Your task to perform on an android device: stop showing notifications on the lock screen Image 0: 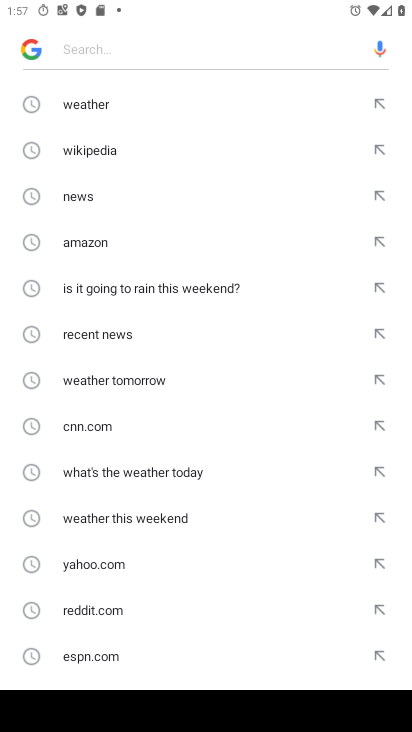
Step 0: press home button
Your task to perform on an android device: stop showing notifications on the lock screen Image 1: 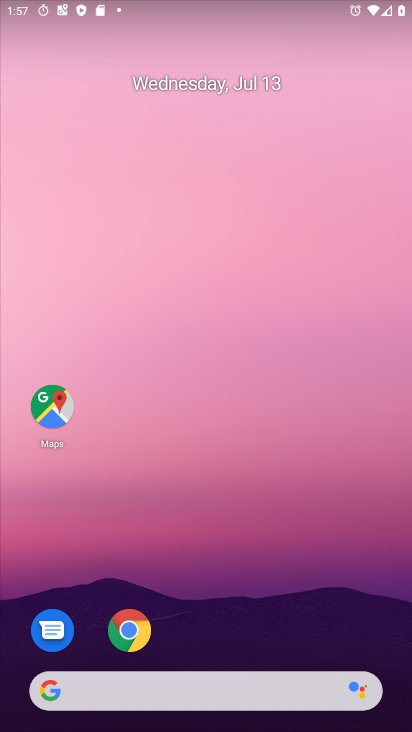
Step 1: drag from (337, 607) to (338, 239)
Your task to perform on an android device: stop showing notifications on the lock screen Image 2: 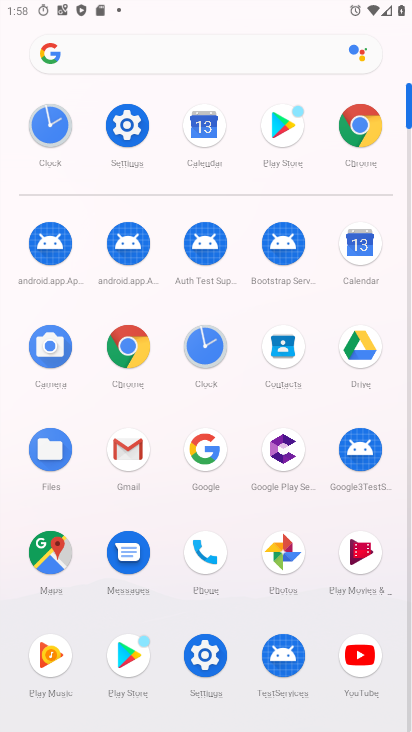
Step 2: click (134, 144)
Your task to perform on an android device: stop showing notifications on the lock screen Image 3: 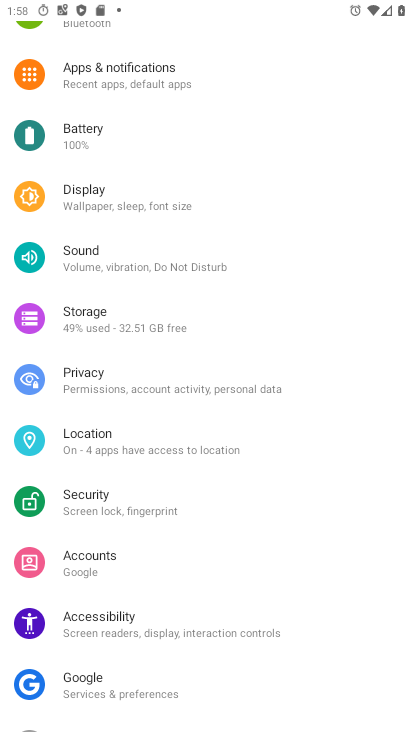
Step 3: drag from (327, 213) to (342, 335)
Your task to perform on an android device: stop showing notifications on the lock screen Image 4: 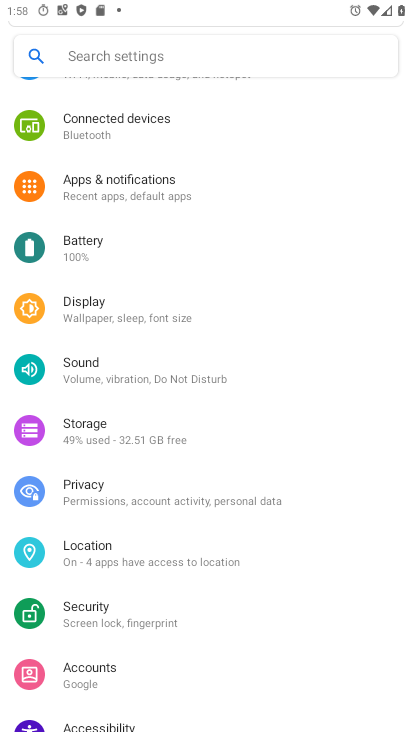
Step 4: drag from (335, 186) to (349, 349)
Your task to perform on an android device: stop showing notifications on the lock screen Image 5: 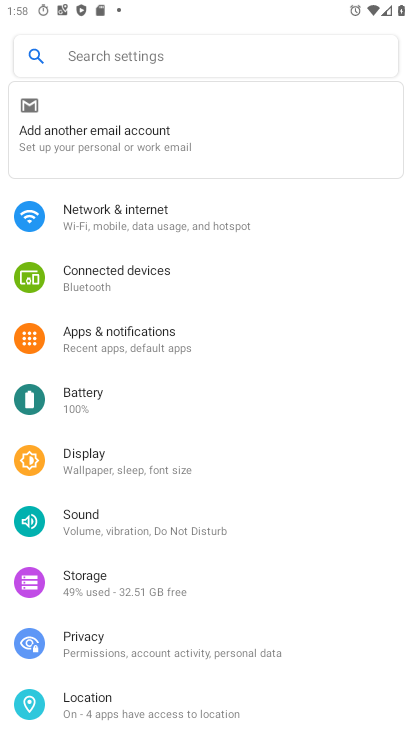
Step 5: drag from (328, 139) to (329, 318)
Your task to perform on an android device: stop showing notifications on the lock screen Image 6: 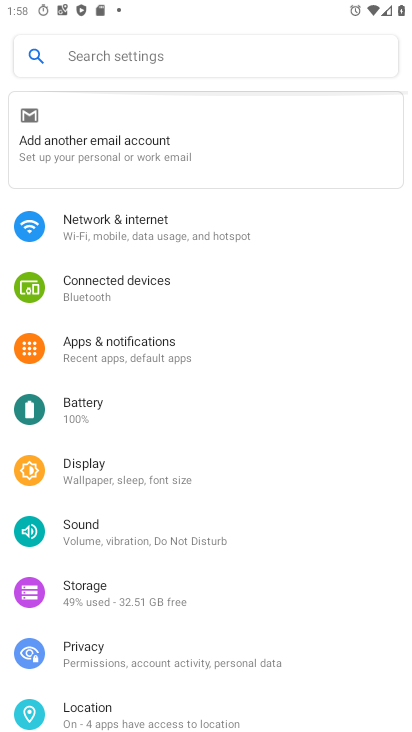
Step 6: drag from (329, 364) to (332, 250)
Your task to perform on an android device: stop showing notifications on the lock screen Image 7: 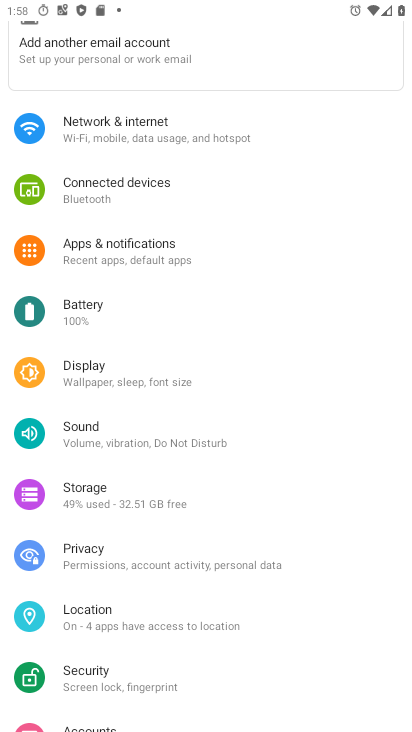
Step 7: drag from (343, 382) to (348, 259)
Your task to perform on an android device: stop showing notifications on the lock screen Image 8: 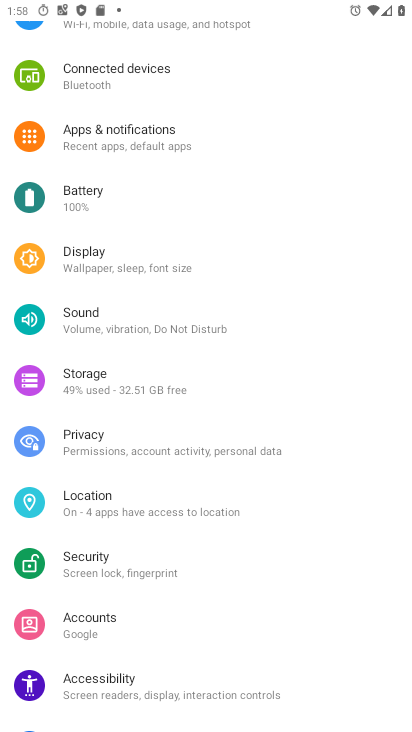
Step 8: drag from (343, 387) to (355, 285)
Your task to perform on an android device: stop showing notifications on the lock screen Image 9: 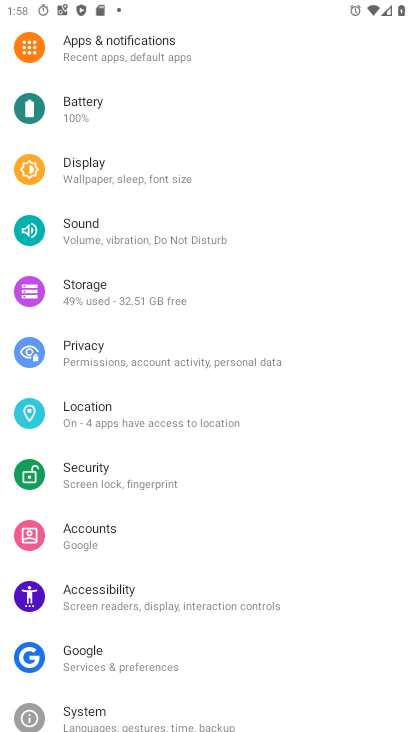
Step 9: drag from (346, 408) to (351, 266)
Your task to perform on an android device: stop showing notifications on the lock screen Image 10: 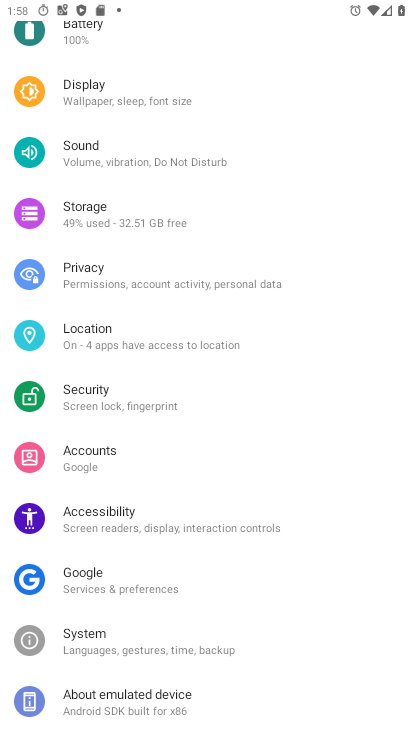
Step 10: drag from (335, 401) to (339, 294)
Your task to perform on an android device: stop showing notifications on the lock screen Image 11: 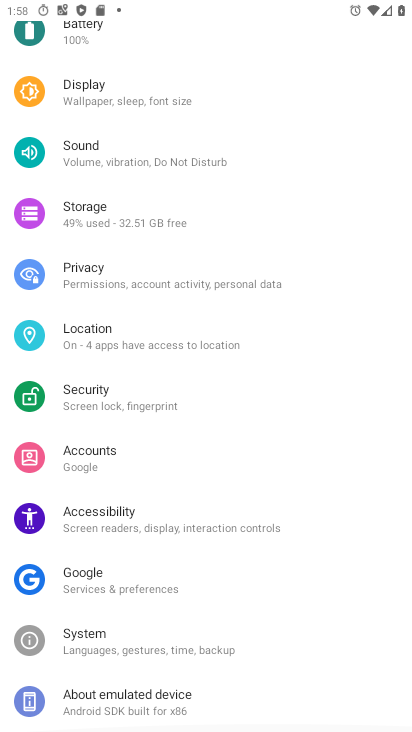
Step 11: drag from (337, 251) to (334, 370)
Your task to perform on an android device: stop showing notifications on the lock screen Image 12: 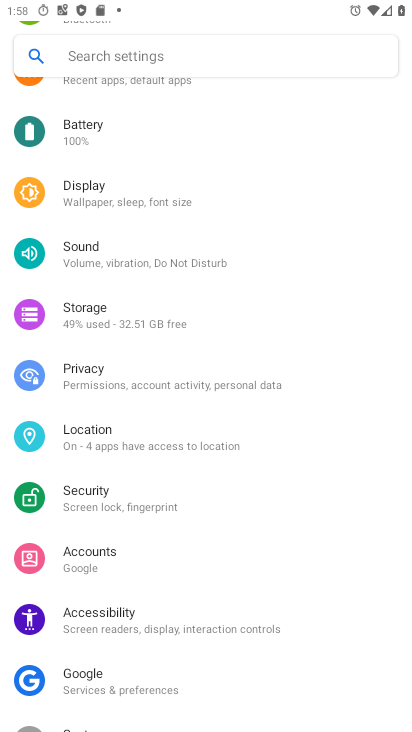
Step 12: drag from (335, 233) to (343, 376)
Your task to perform on an android device: stop showing notifications on the lock screen Image 13: 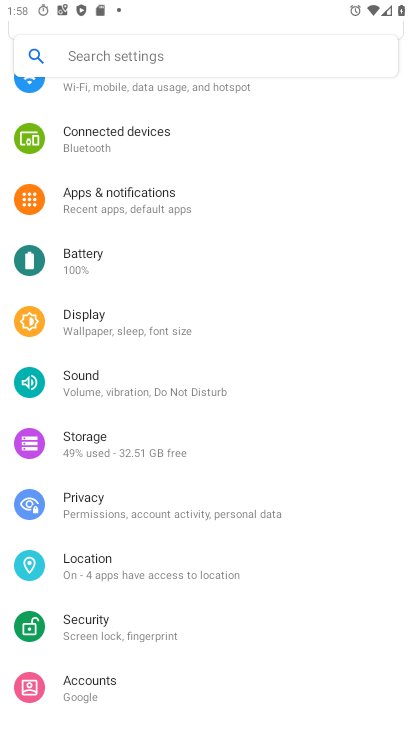
Step 13: drag from (339, 264) to (350, 403)
Your task to perform on an android device: stop showing notifications on the lock screen Image 14: 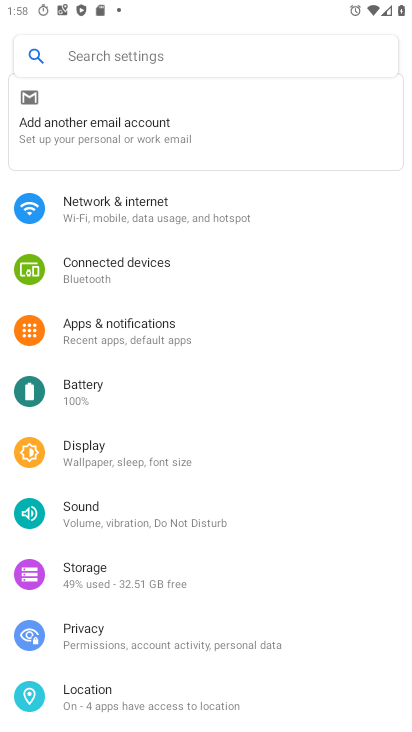
Step 14: drag from (347, 203) to (338, 371)
Your task to perform on an android device: stop showing notifications on the lock screen Image 15: 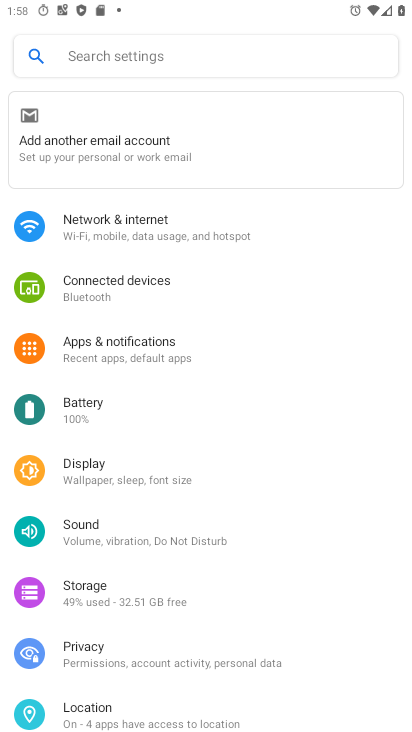
Step 15: click (172, 343)
Your task to perform on an android device: stop showing notifications on the lock screen Image 16: 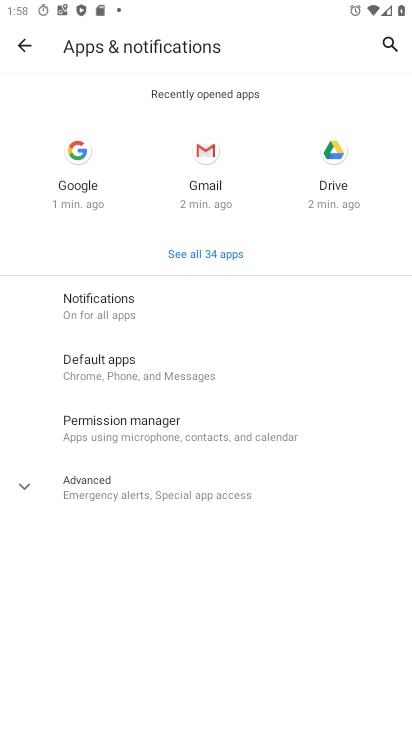
Step 16: click (125, 305)
Your task to perform on an android device: stop showing notifications on the lock screen Image 17: 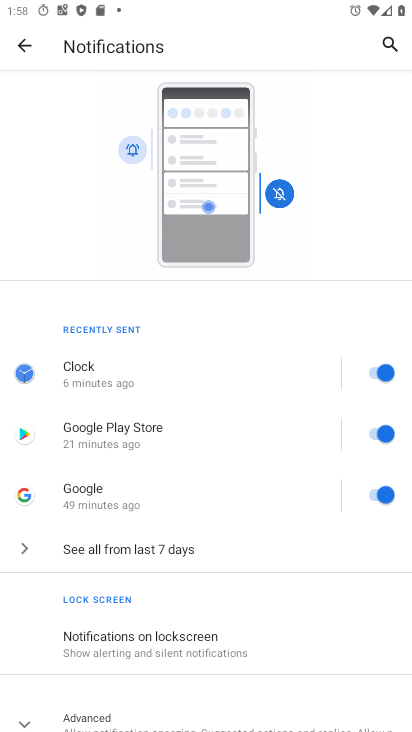
Step 17: drag from (283, 413) to (287, 305)
Your task to perform on an android device: stop showing notifications on the lock screen Image 18: 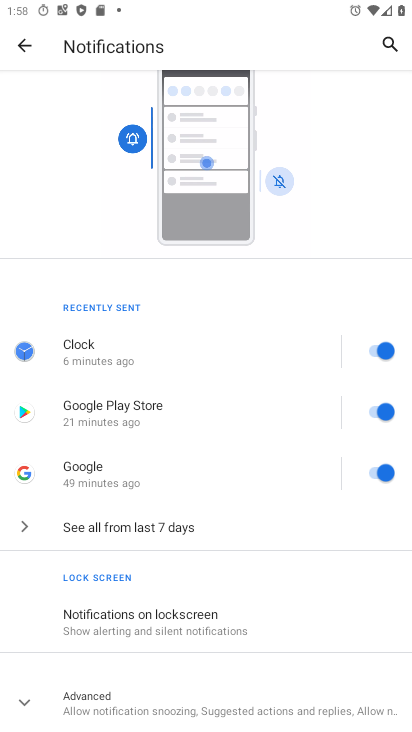
Step 18: click (228, 625)
Your task to perform on an android device: stop showing notifications on the lock screen Image 19: 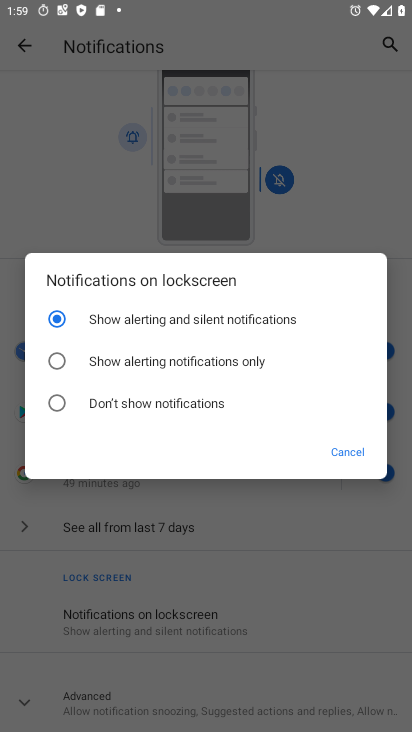
Step 19: click (150, 405)
Your task to perform on an android device: stop showing notifications on the lock screen Image 20: 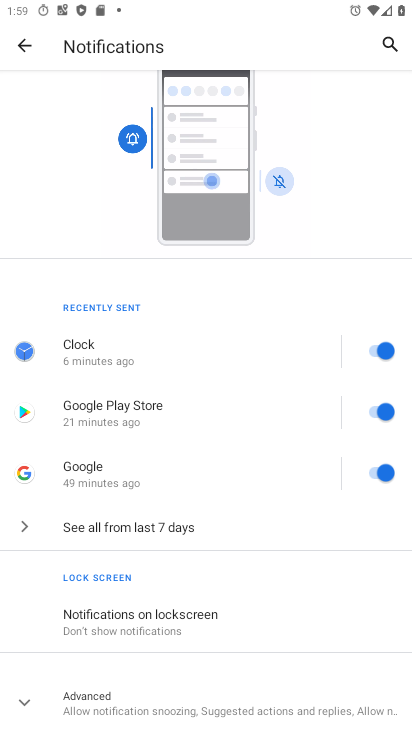
Step 20: task complete